Your task to perform on an android device: install app "ColorNote Notepad Notes" Image 0: 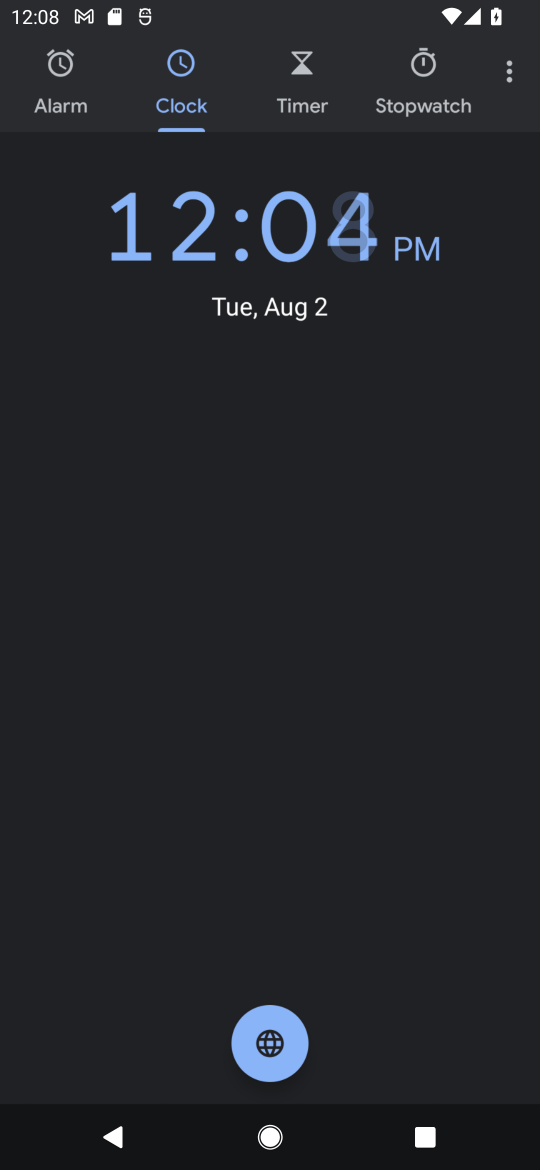
Step 0: press home button
Your task to perform on an android device: install app "ColorNote Notepad Notes" Image 1: 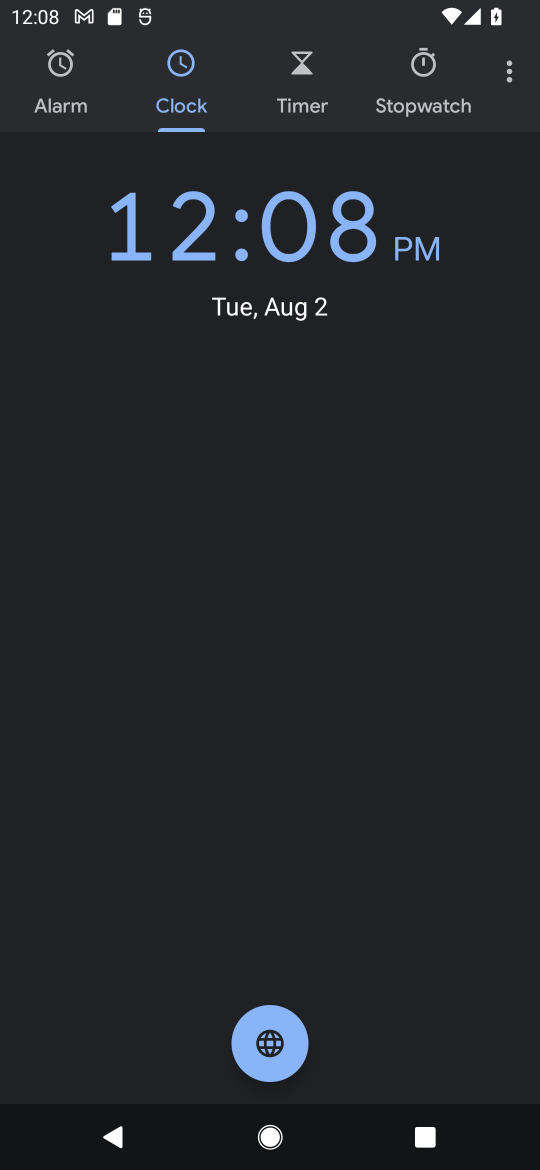
Step 1: press home button
Your task to perform on an android device: install app "ColorNote Notepad Notes" Image 2: 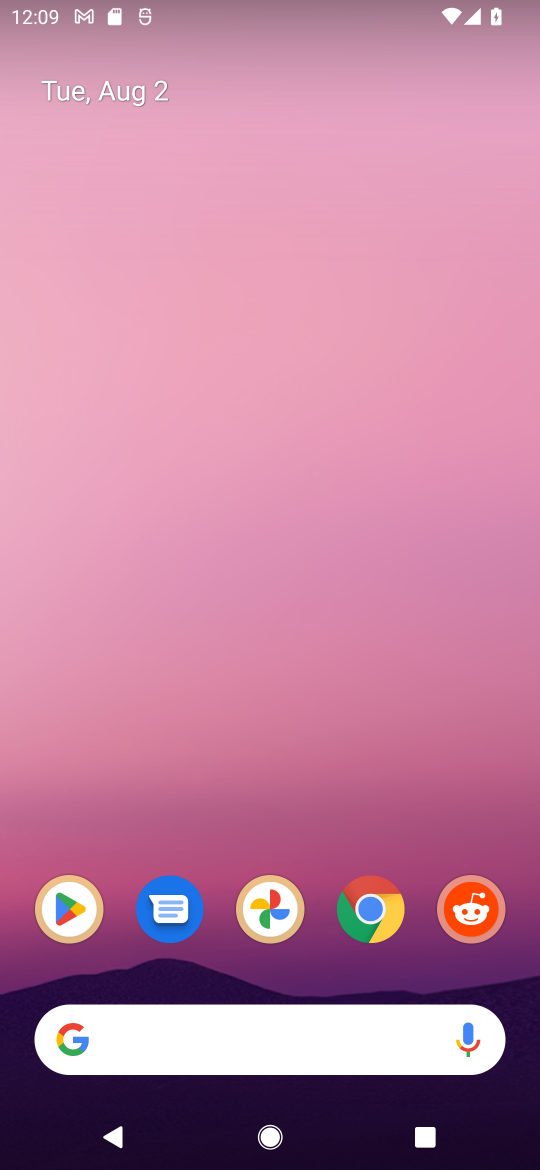
Step 2: click (91, 947)
Your task to perform on an android device: install app "ColorNote Notepad Notes" Image 3: 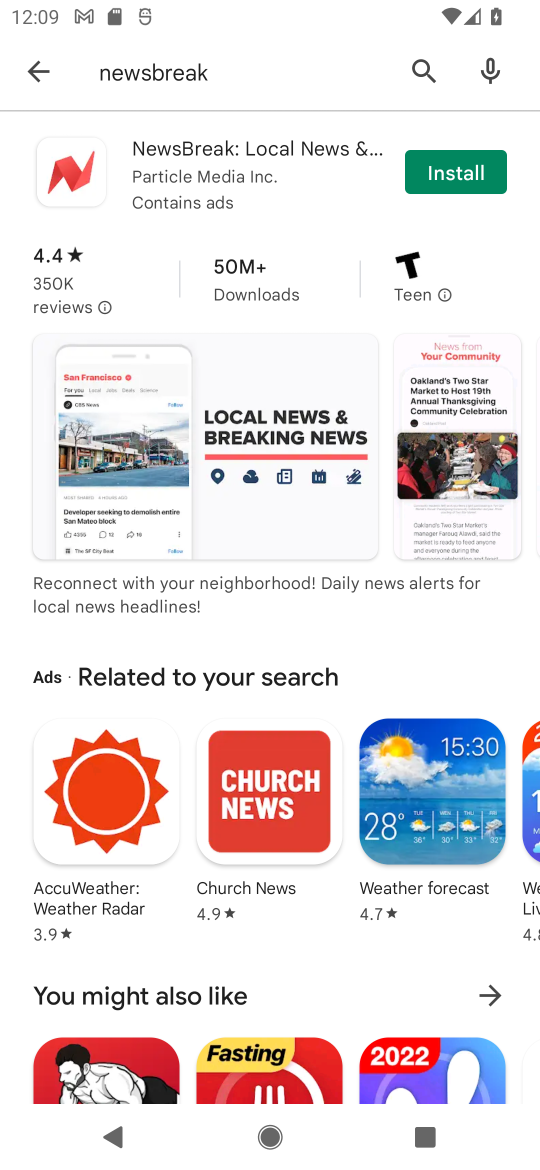
Step 3: click (415, 70)
Your task to perform on an android device: install app "ColorNote Notepad Notes" Image 4: 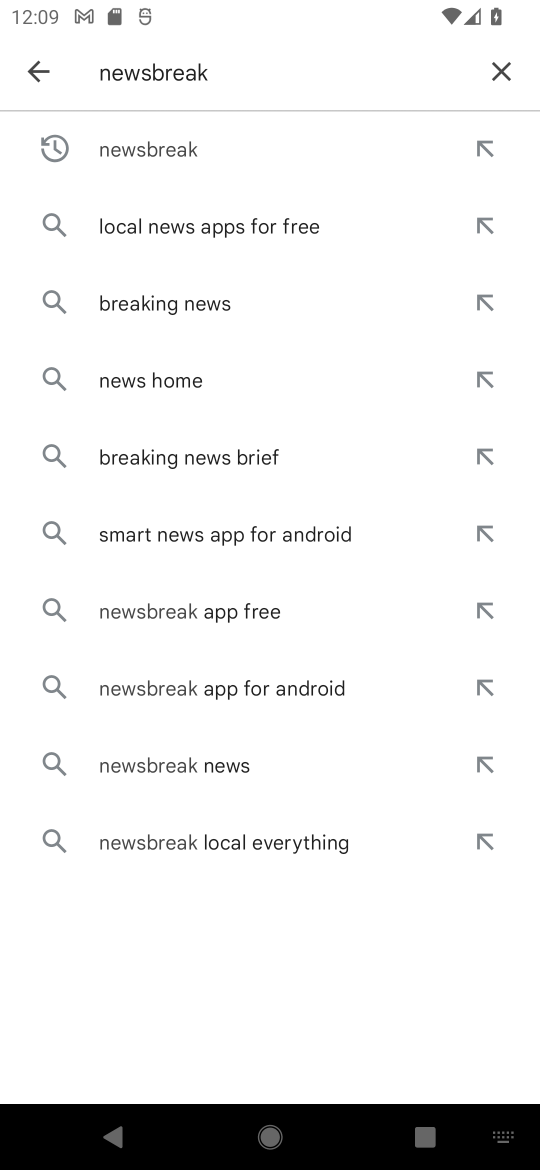
Step 4: click (502, 61)
Your task to perform on an android device: install app "ColorNote Notepad Notes" Image 5: 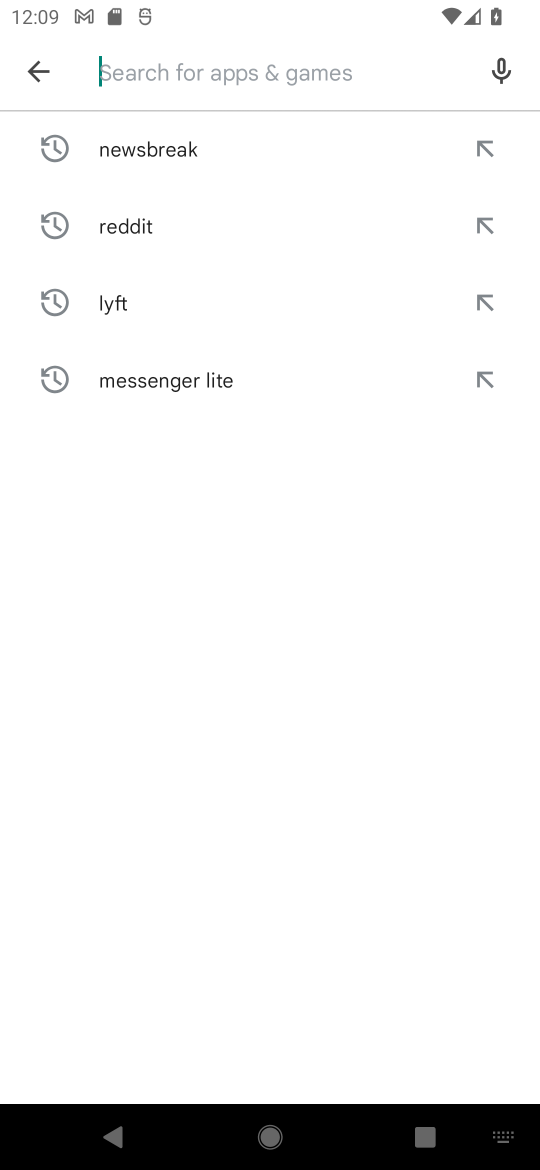
Step 5: type "ColorNote Notepad Notes"
Your task to perform on an android device: install app "ColorNote Notepad Notes" Image 6: 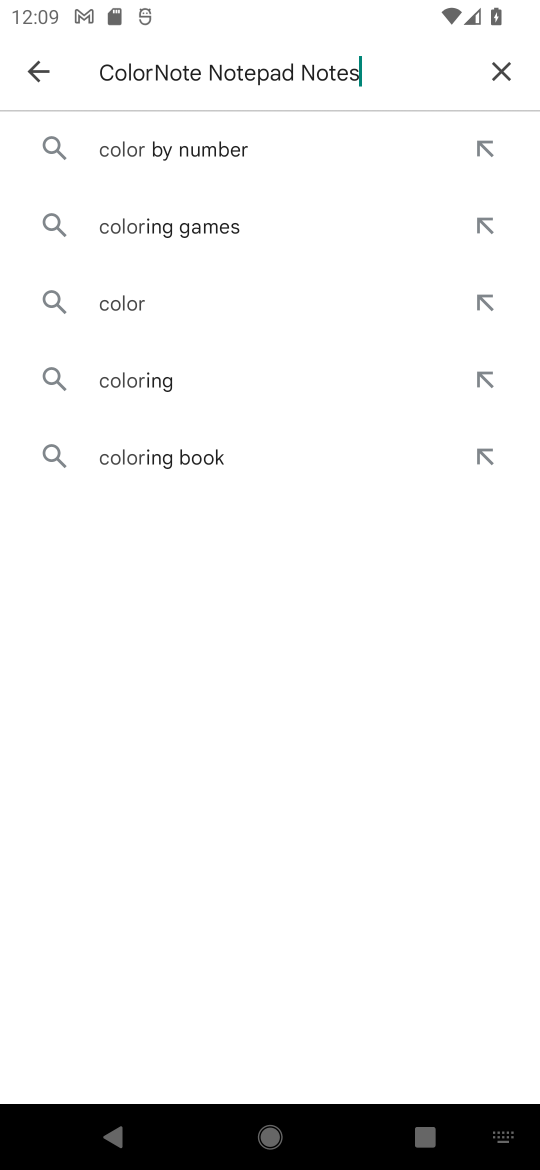
Step 6: type ""
Your task to perform on an android device: install app "ColorNote Notepad Notes" Image 7: 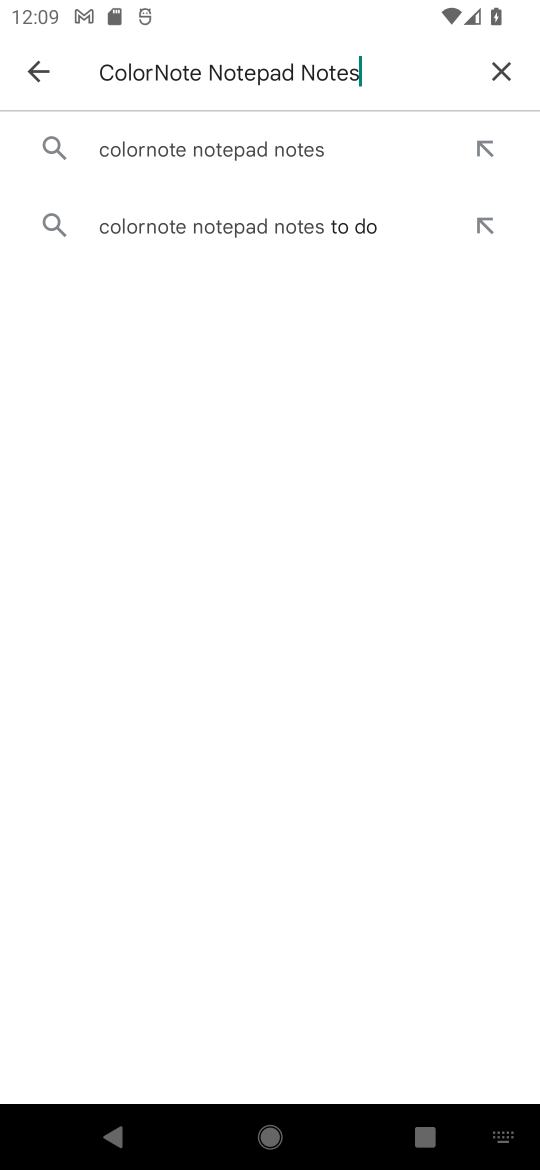
Step 7: click (187, 159)
Your task to perform on an android device: install app "ColorNote Notepad Notes" Image 8: 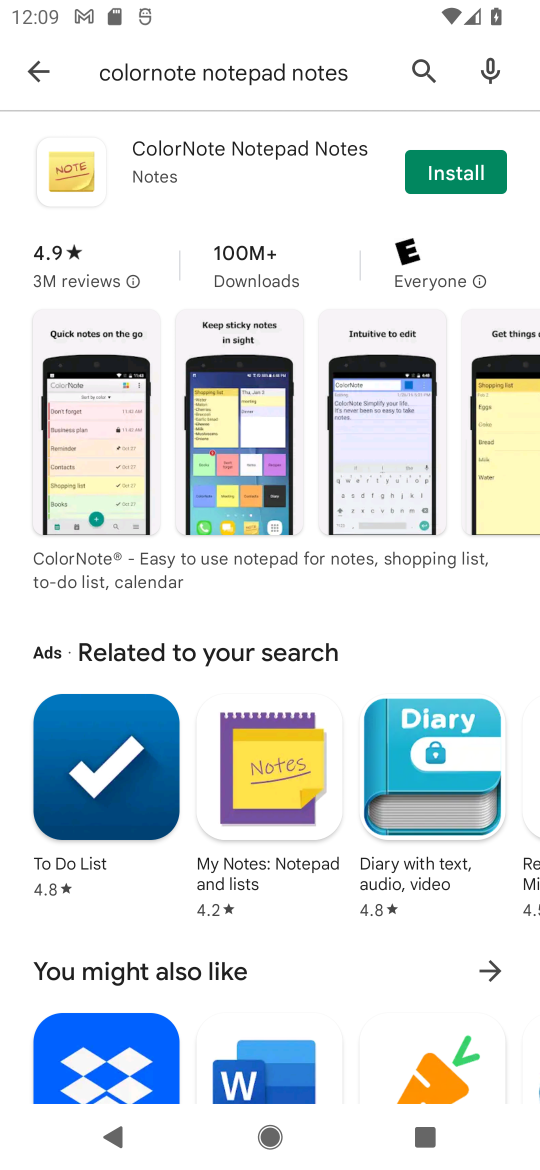
Step 8: click (442, 160)
Your task to perform on an android device: install app "ColorNote Notepad Notes" Image 9: 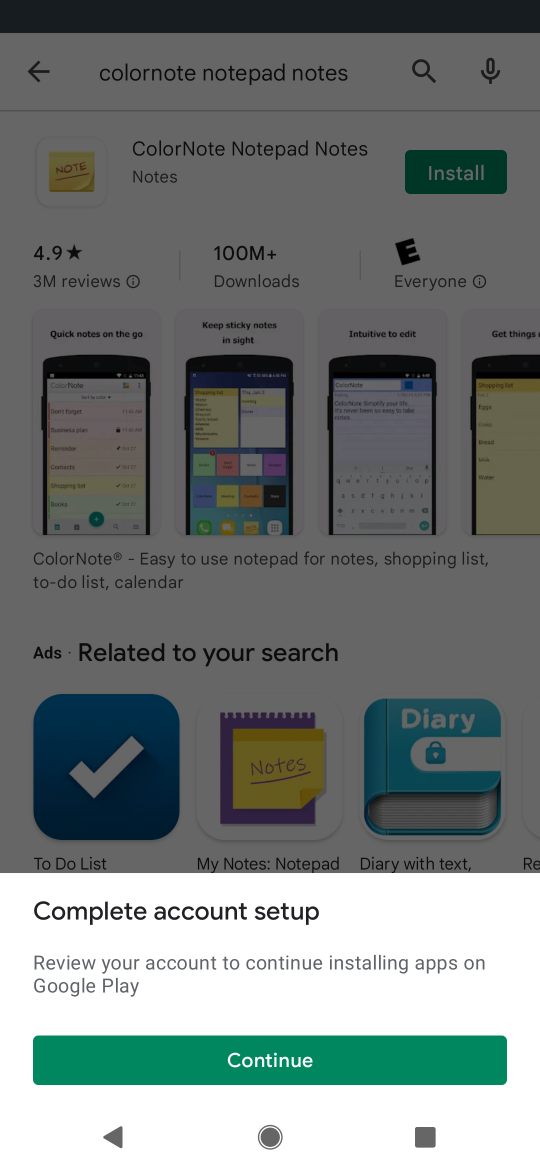
Step 9: click (130, 1084)
Your task to perform on an android device: install app "ColorNote Notepad Notes" Image 10: 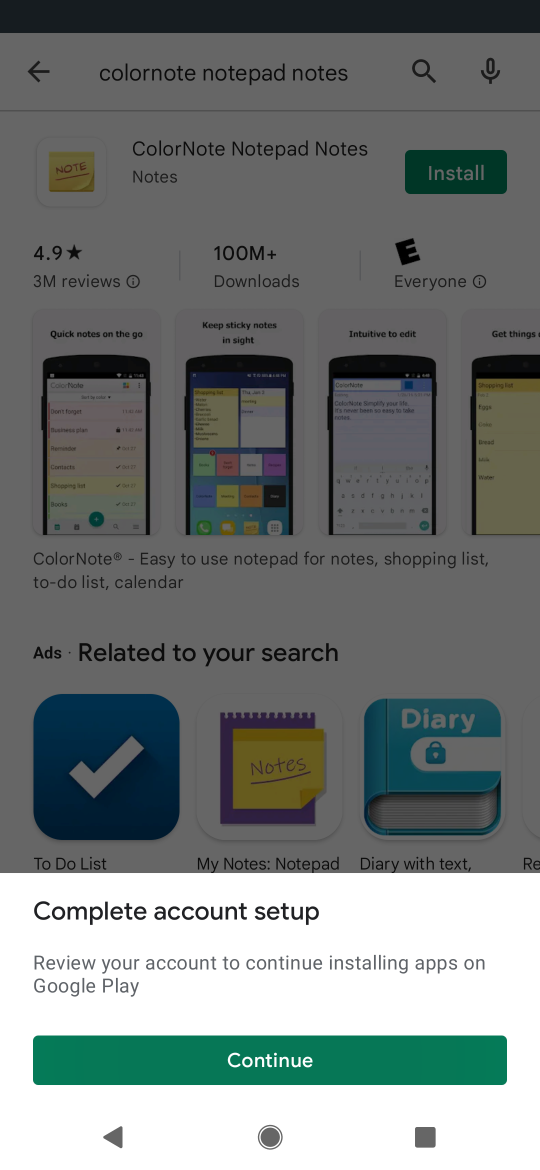
Step 10: click (130, 1084)
Your task to perform on an android device: install app "ColorNote Notepad Notes" Image 11: 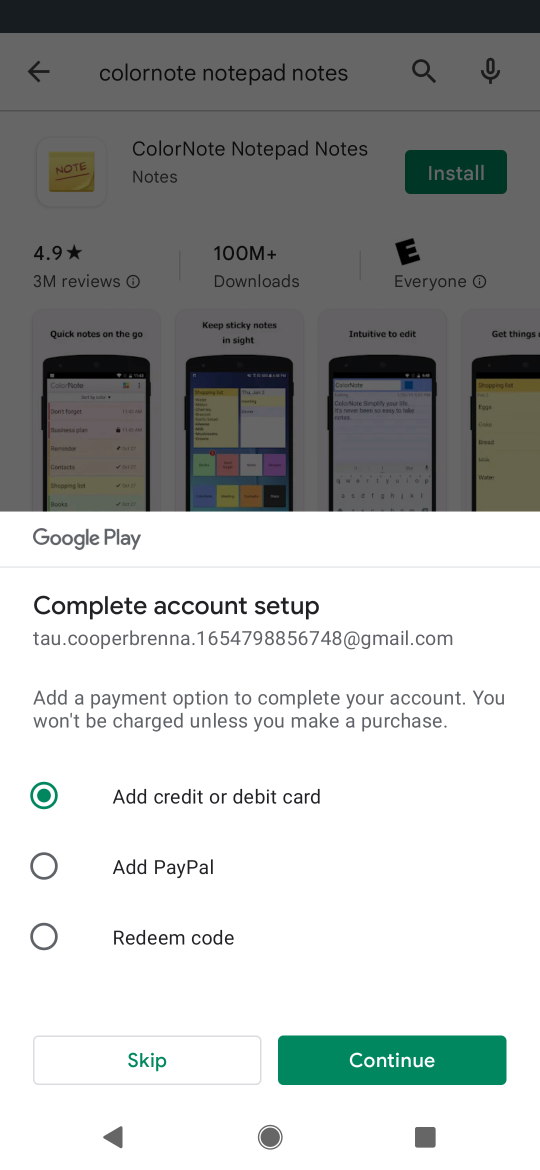
Step 11: click (125, 1064)
Your task to perform on an android device: install app "ColorNote Notepad Notes" Image 12: 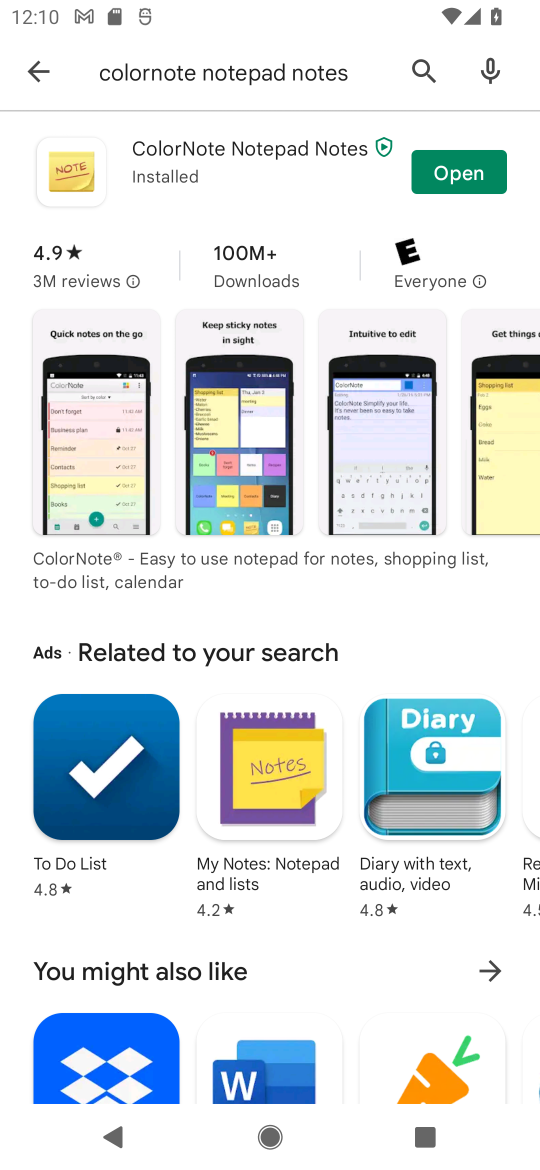
Step 12: task complete